Your task to perform on an android device: turn on wifi Image 0: 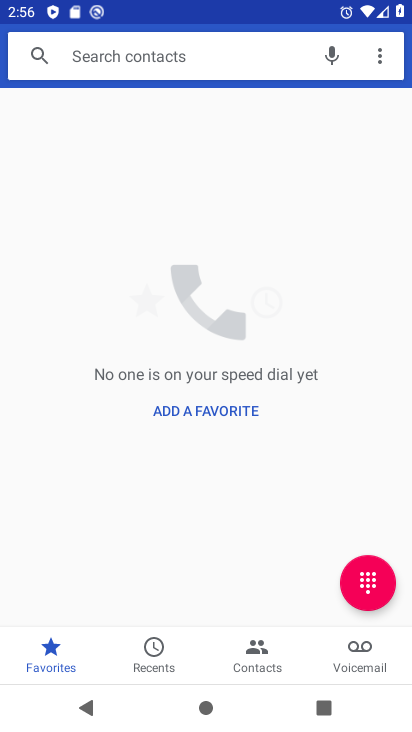
Step 0: press back button
Your task to perform on an android device: turn on wifi Image 1: 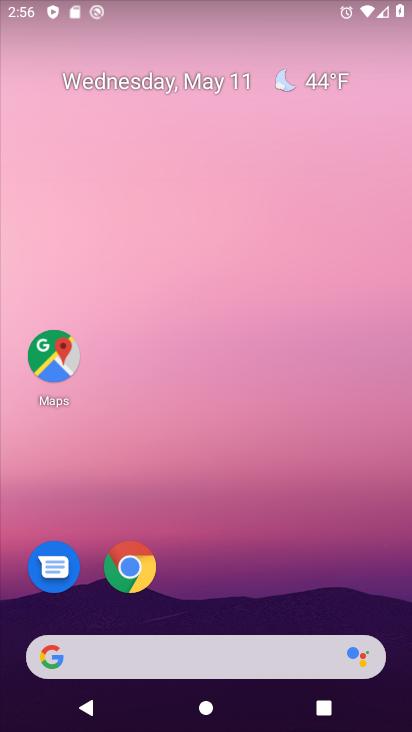
Step 1: drag from (211, 539) to (175, 37)
Your task to perform on an android device: turn on wifi Image 2: 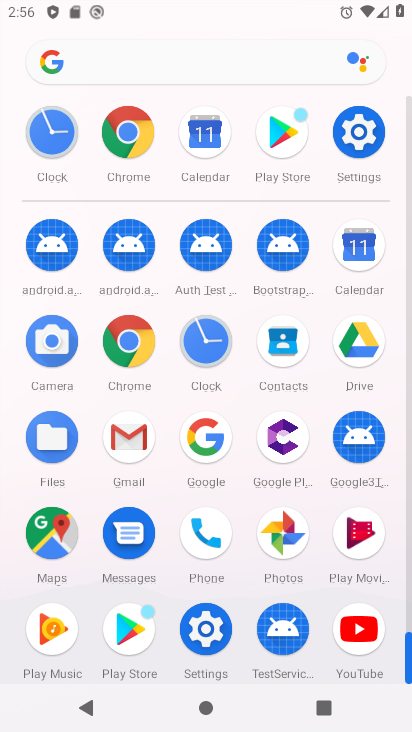
Step 2: click (204, 626)
Your task to perform on an android device: turn on wifi Image 3: 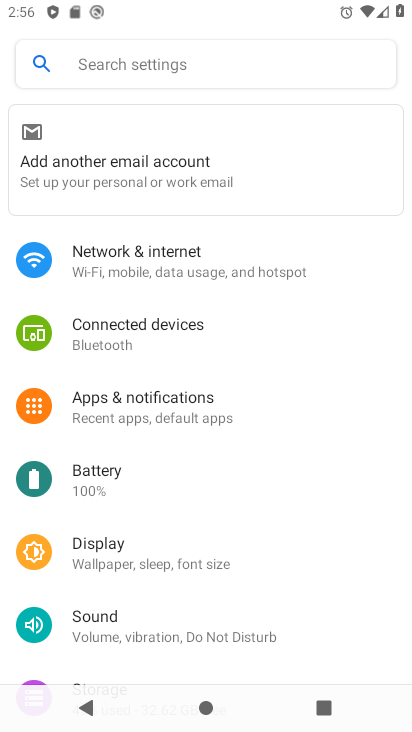
Step 3: click (185, 244)
Your task to perform on an android device: turn on wifi Image 4: 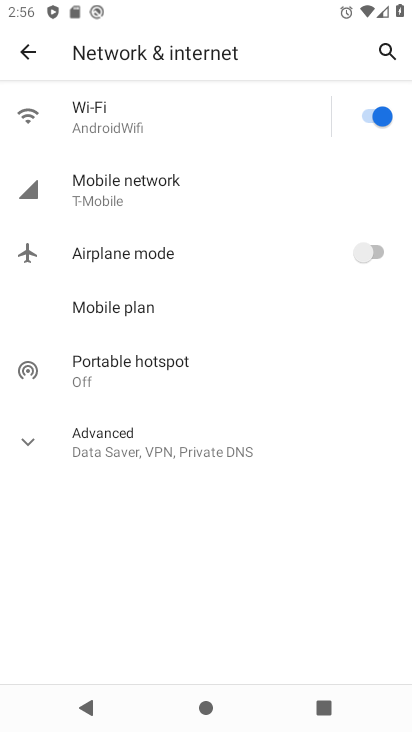
Step 4: task complete